Your task to perform on an android device: set the stopwatch Image 0: 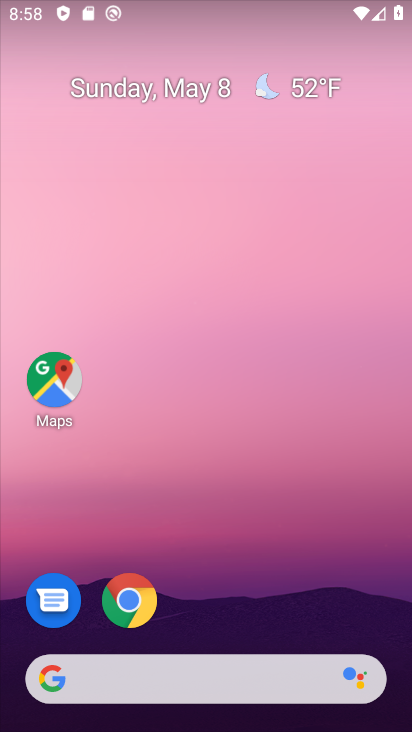
Step 0: click (231, 237)
Your task to perform on an android device: set the stopwatch Image 1: 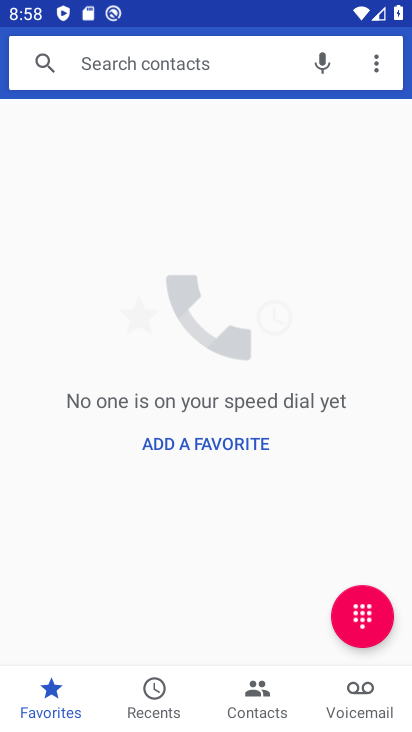
Step 1: press home button
Your task to perform on an android device: set the stopwatch Image 2: 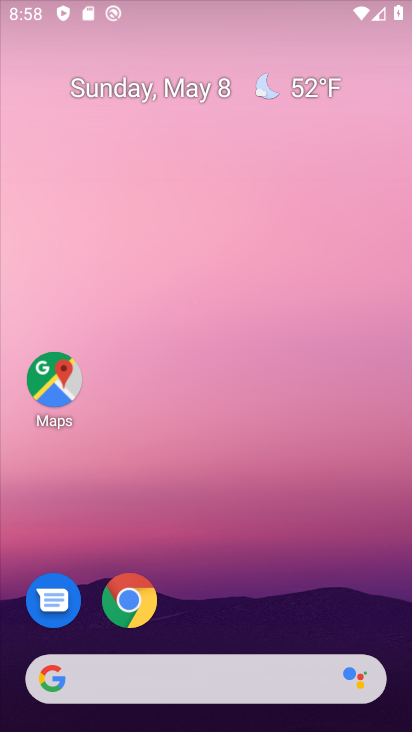
Step 2: drag from (278, 508) to (351, 8)
Your task to perform on an android device: set the stopwatch Image 3: 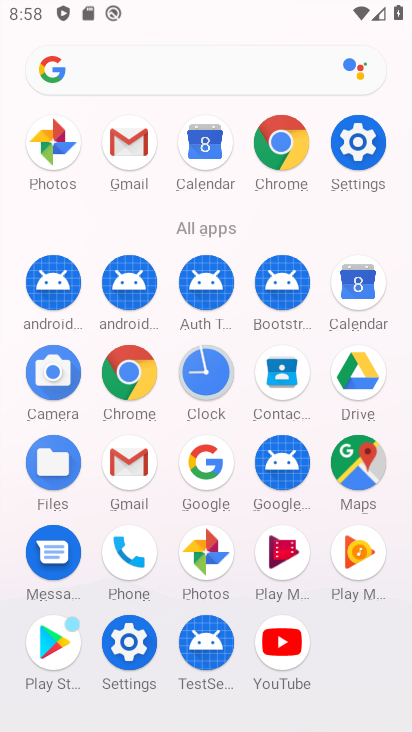
Step 3: click (203, 388)
Your task to perform on an android device: set the stopwatch Image 4: 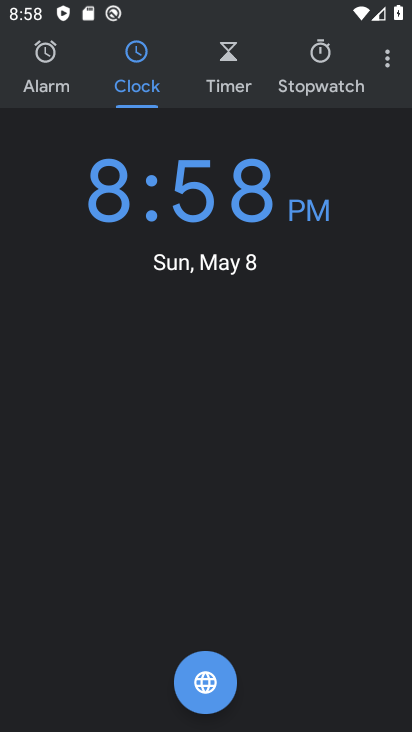
Step 4: click (324, 79)
Your task to perform on an android device: set the stopwatch Image 5: 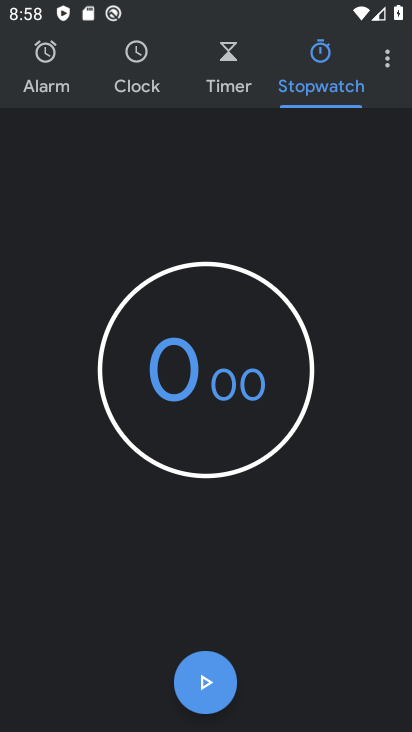
Step 5: click (192, 691)
Your task to perform on an android device: set the stopwatch Image 6: 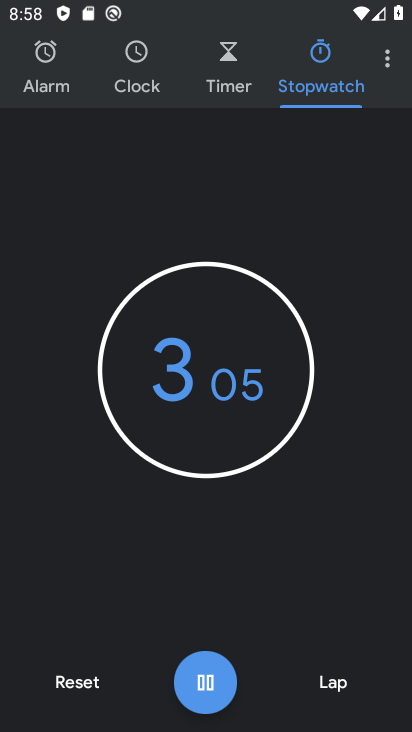
Step 6: task complete